Your task to perform on an android device: toggle javascript in the chrome app Image 0: 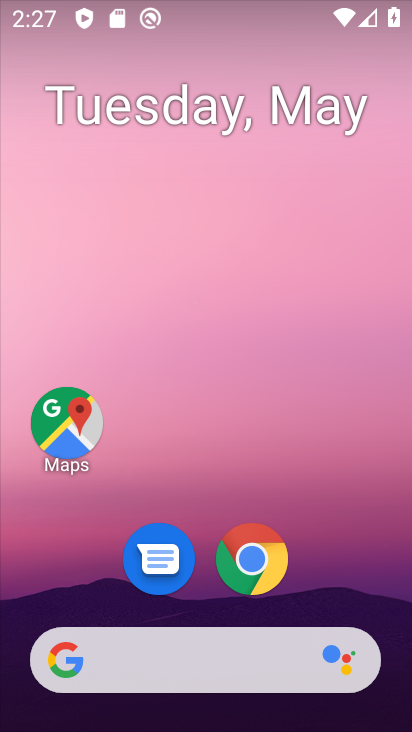
Step 0: click (248, 534)
Your task to perform on an android device: toggle javascript in the chrome app Image 1: 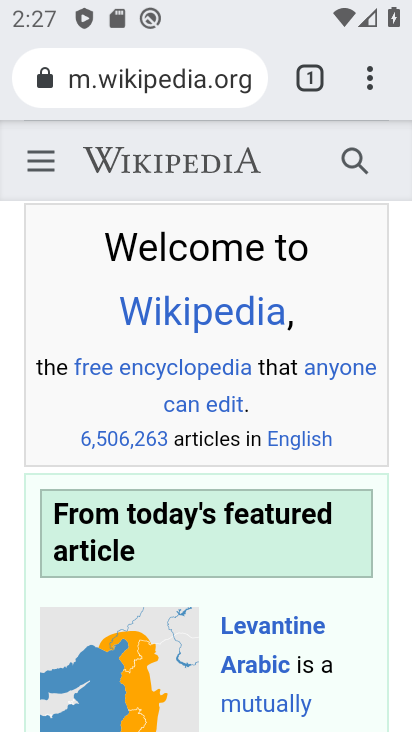
Step 1: click (372, 78)
Your task to perform on an android device: toggle javascript in the chrome app Image 2: 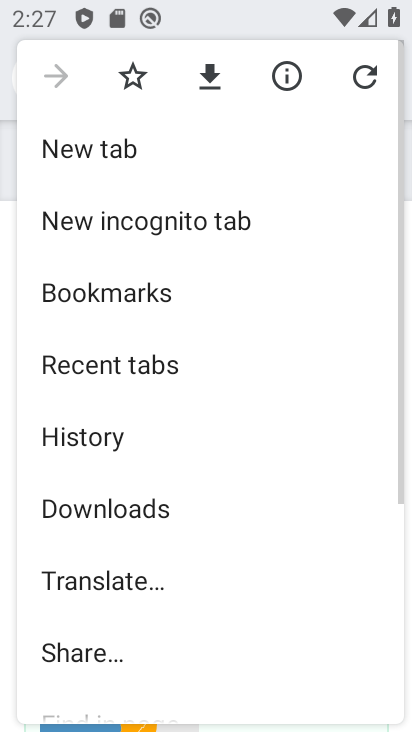
Step 2: drag from (181, 579) to (206, 189)
Your task to perform on an android device: toggle javascript in the chrome app Image 3: 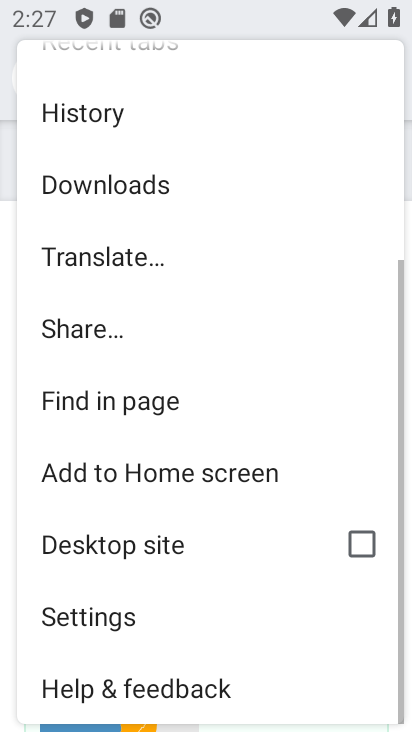
Step 3: click (96, 608)
Your task to perform on an android device: toggle javascript in the chrome app Image 4: 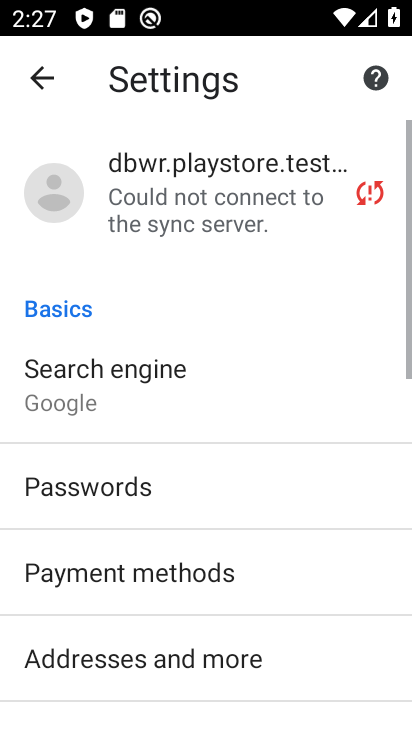
Step 4: drag from (182, 507) to (198, 154)
Your task to perform on an android device: toggle javascript in the chrome app Image 5: 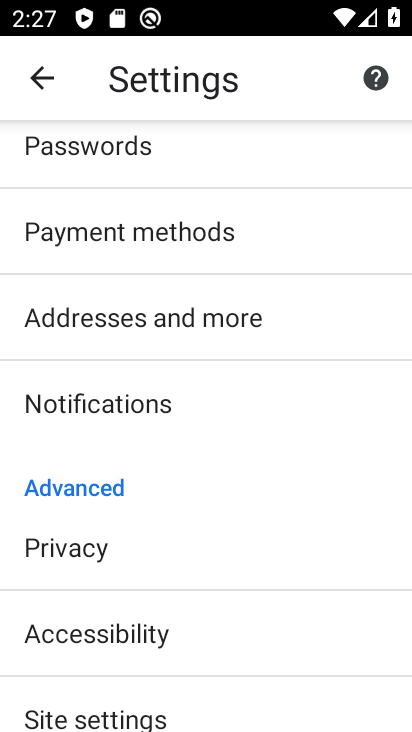
Step 5: click (88, 694)
Your task to perform on an android device: toggle javascript in the chrome app Image 6: 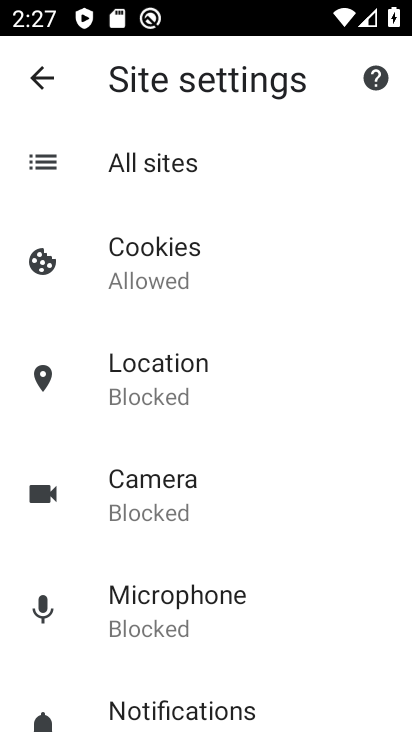
Step 6: drag from (173, 630) to (201, 325)
Your task to perform on an android device: toggle javascript in the chrome app Image 7: 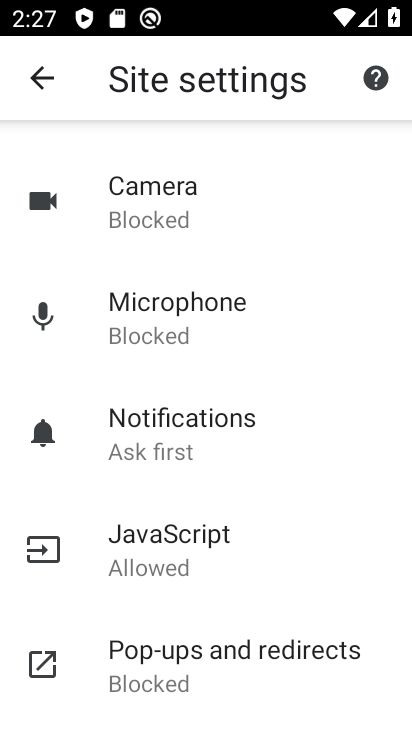
Step 7: click (163, 550)
Your task to perform on an android device: toggle javascript in the chrome app Image 8: 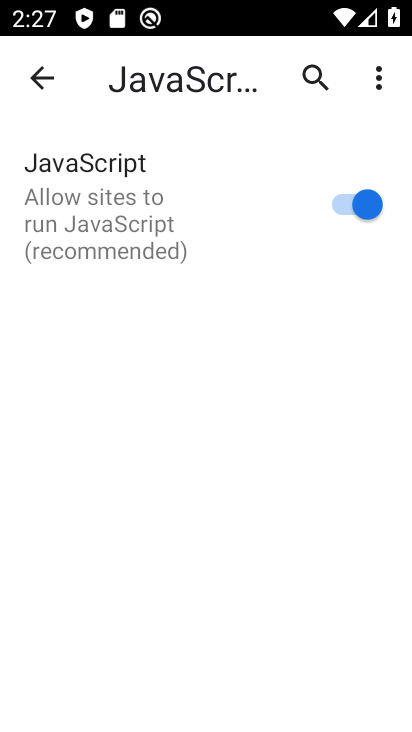
Step 8: click (334, 199)
Your task to perform on an android device: toggle javascript in the chrome app Image 9: 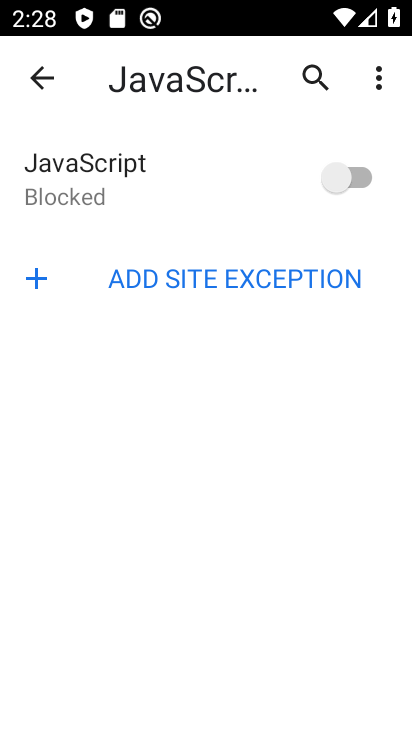
Step 9: task complete